Your task to perform on an android device: toggle priority inbox in the gmail app Image 0: 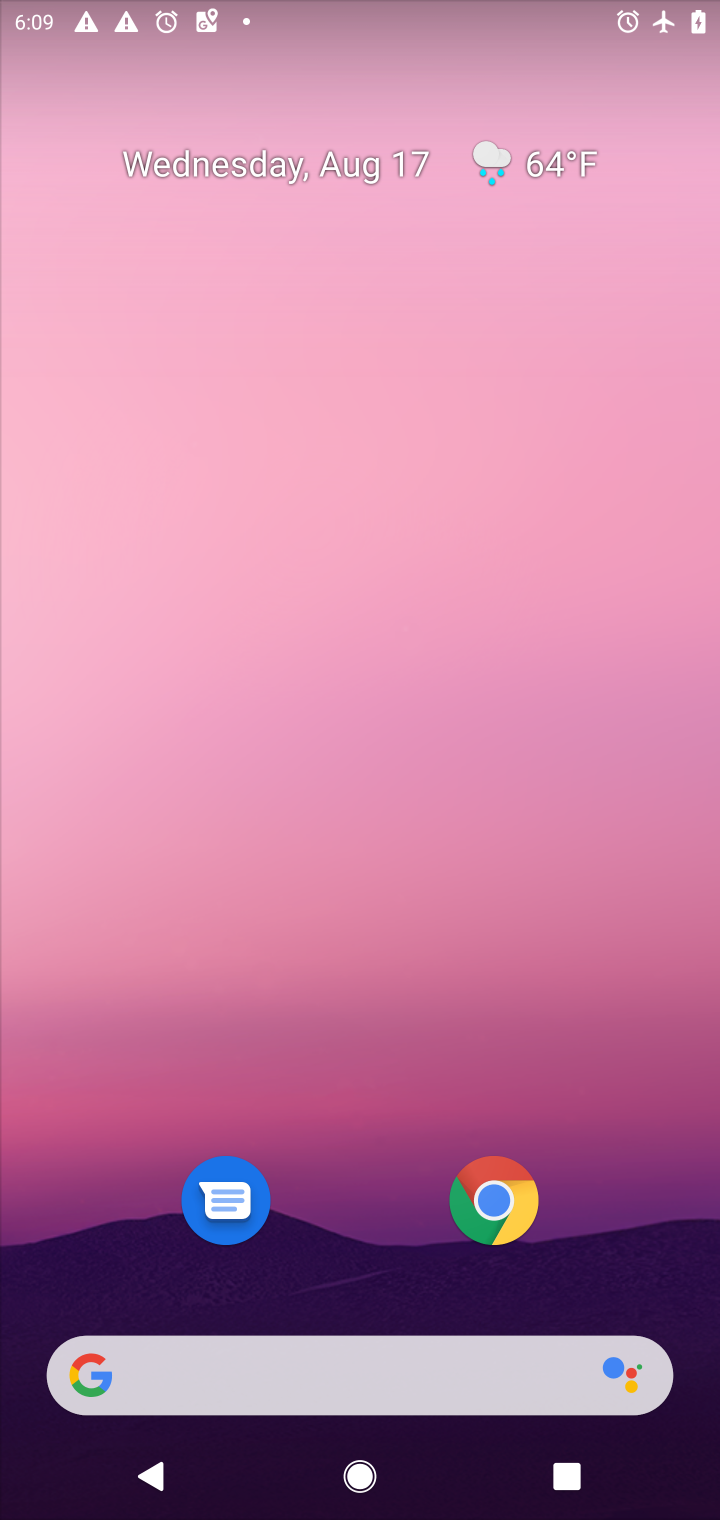
Step 0: drag from (395, 831) to (395, 39)
Your task to perform on an android device: toggle priority inbox in the gmail app Image 1: 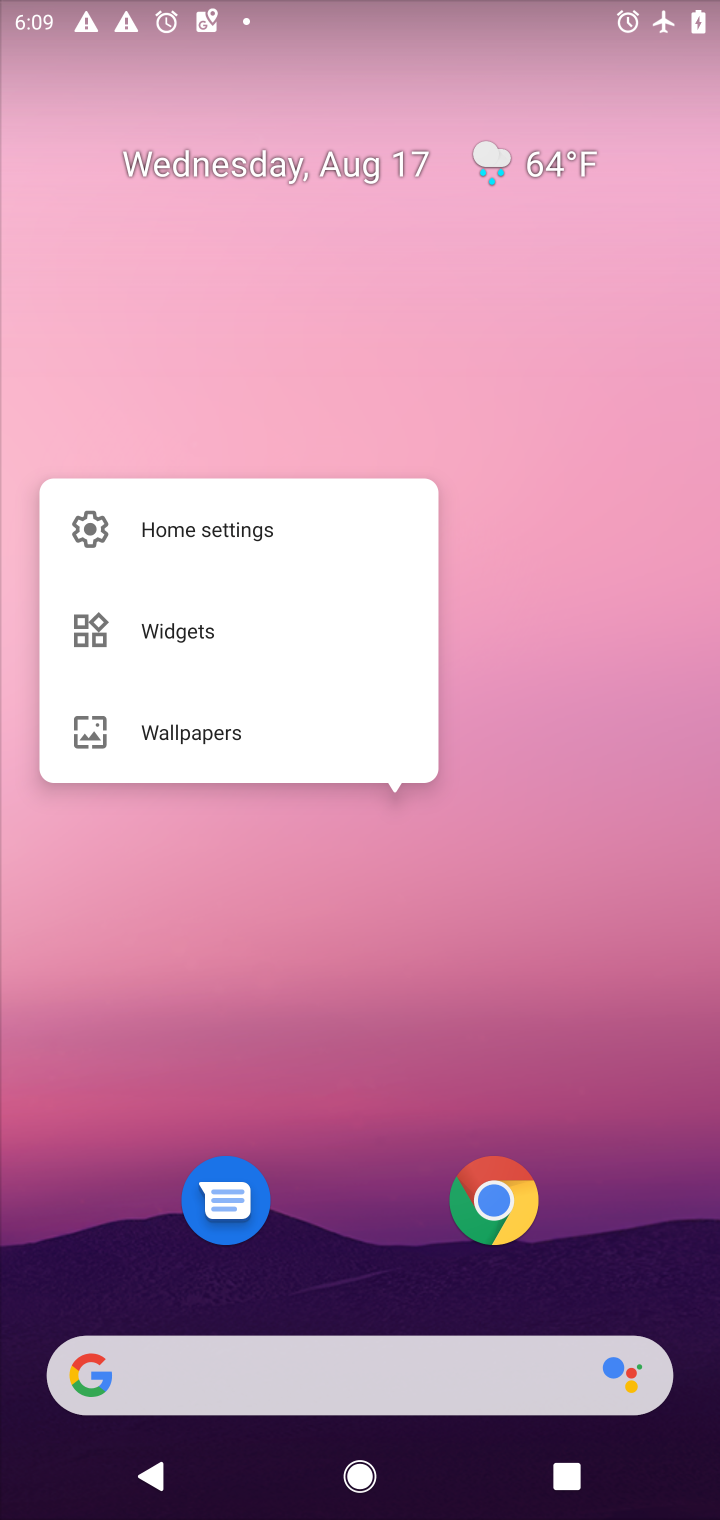
Step 1: click (259, 1027)
Your task to perform on an android device: toggle priority inbox in the gmail app Image 2: 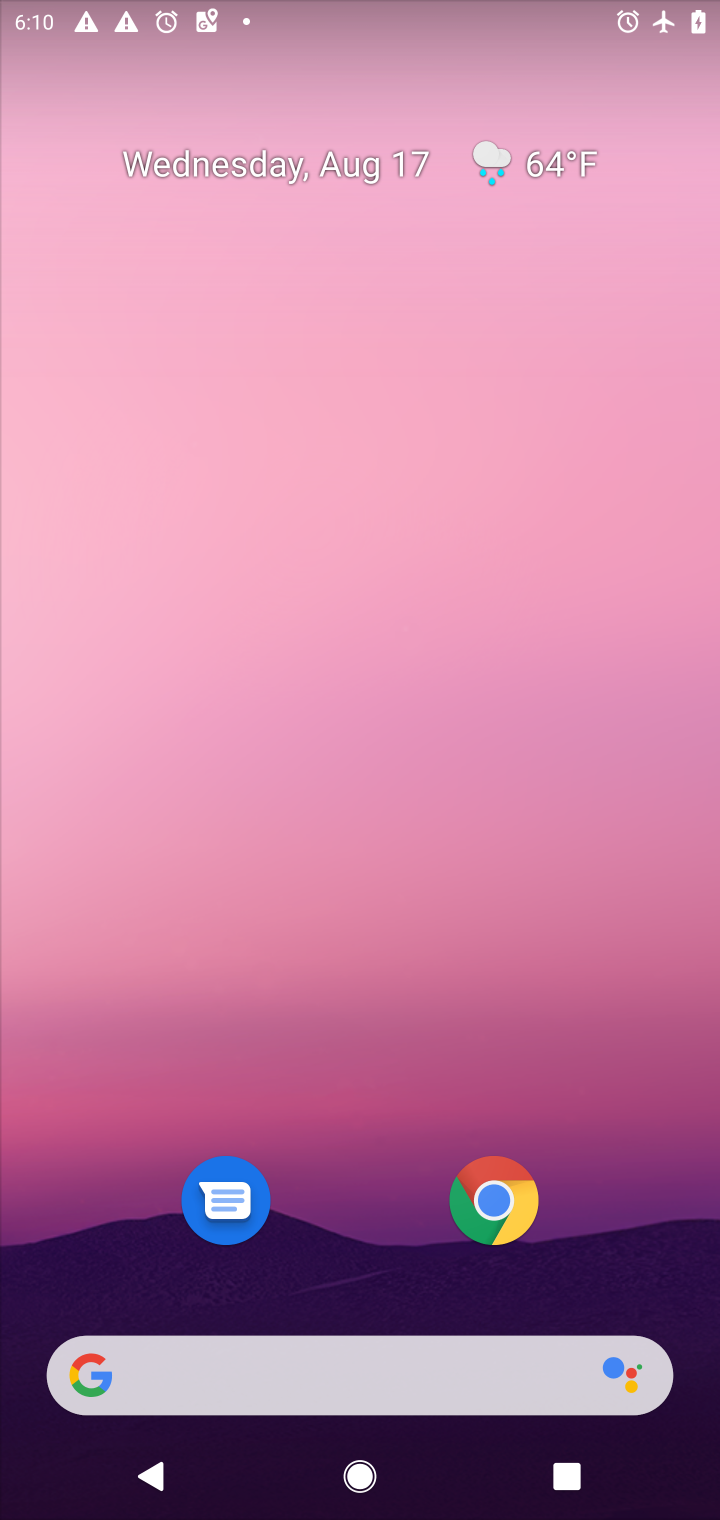
Step 2: drag from (300, 1315) to (267, 62)
Your task to perform on an android device: toggle priority inbox in the gmail app Image 3: 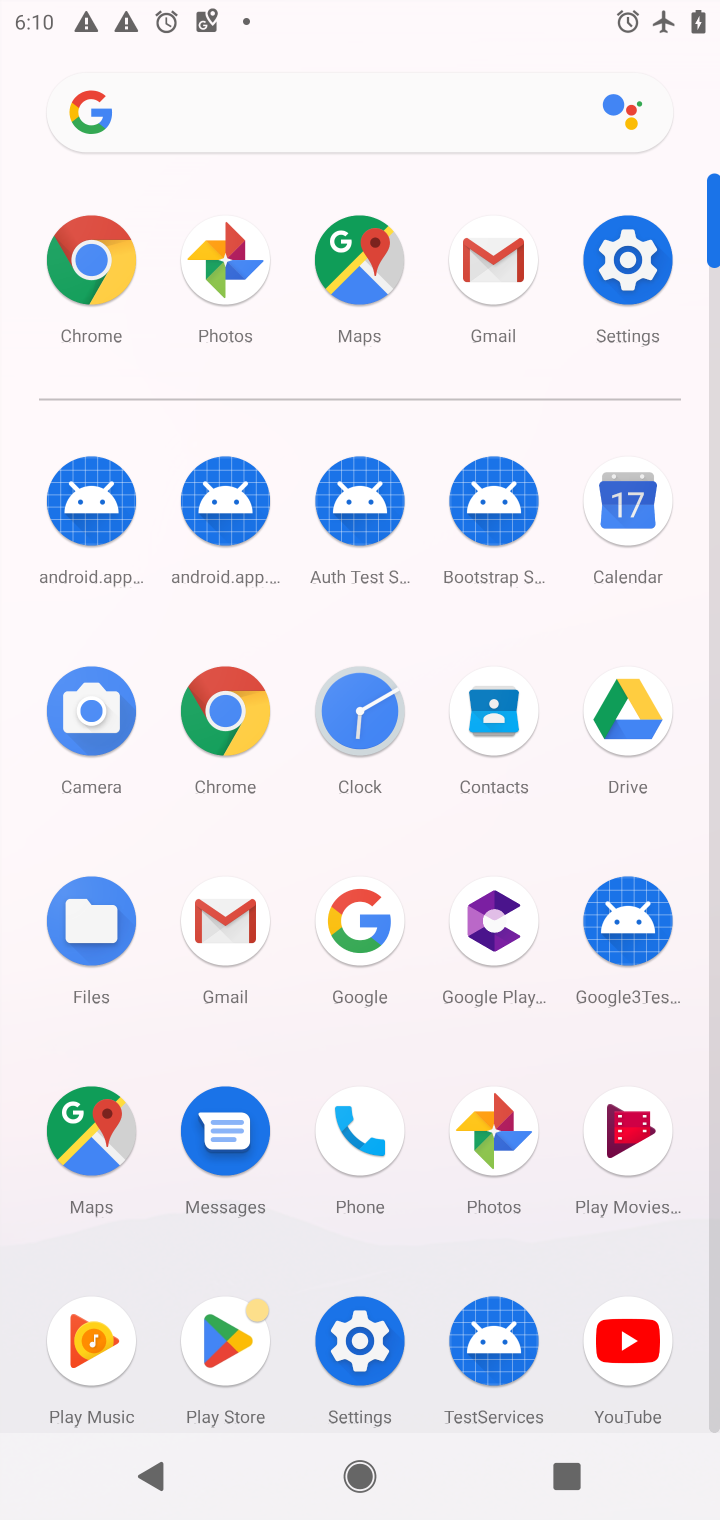
Step 3: click (217, 908)
Your task to perform on an android device: toggle priority inbox in the gmail app Image 4: 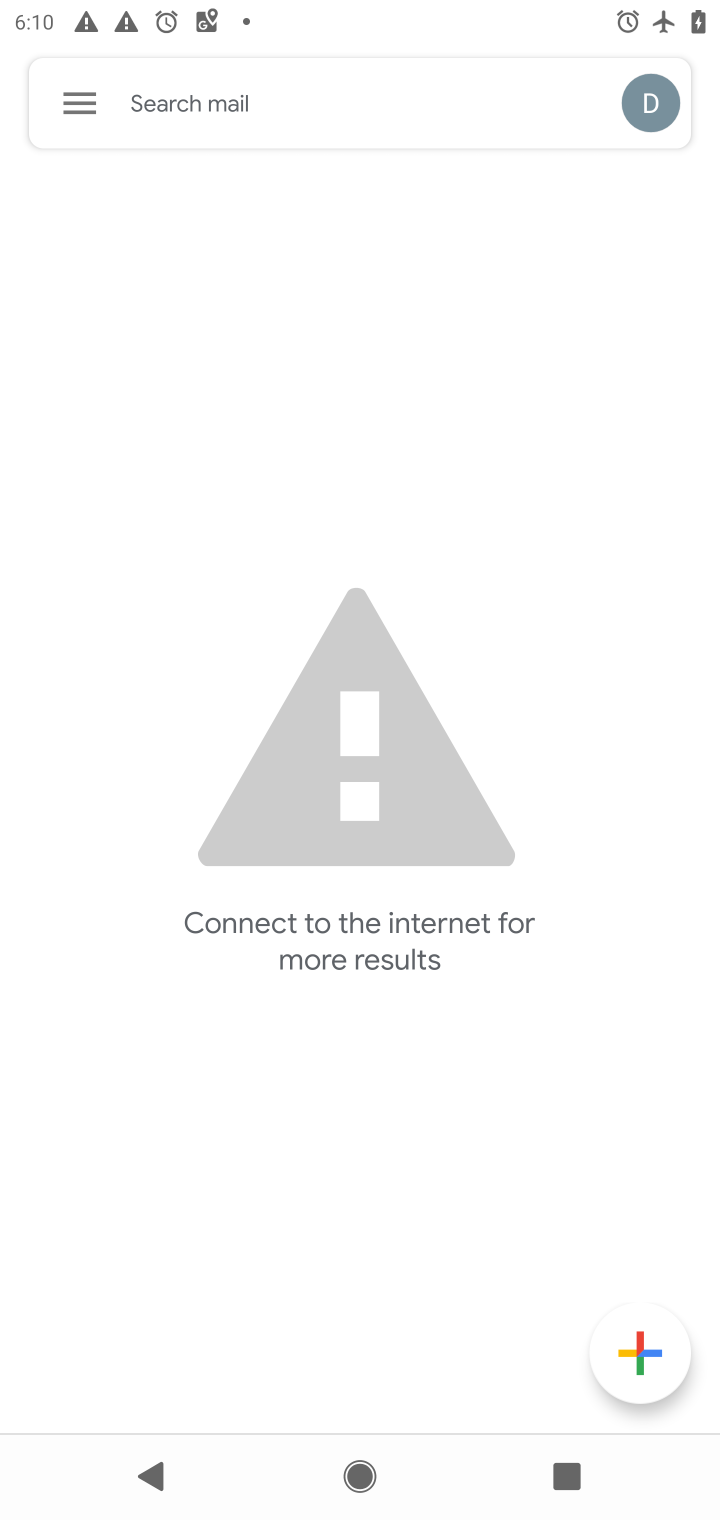
Step 4: click (74, 96)
Your task to perform on an android device: toggle priority inbox in the gmail app Image 5: 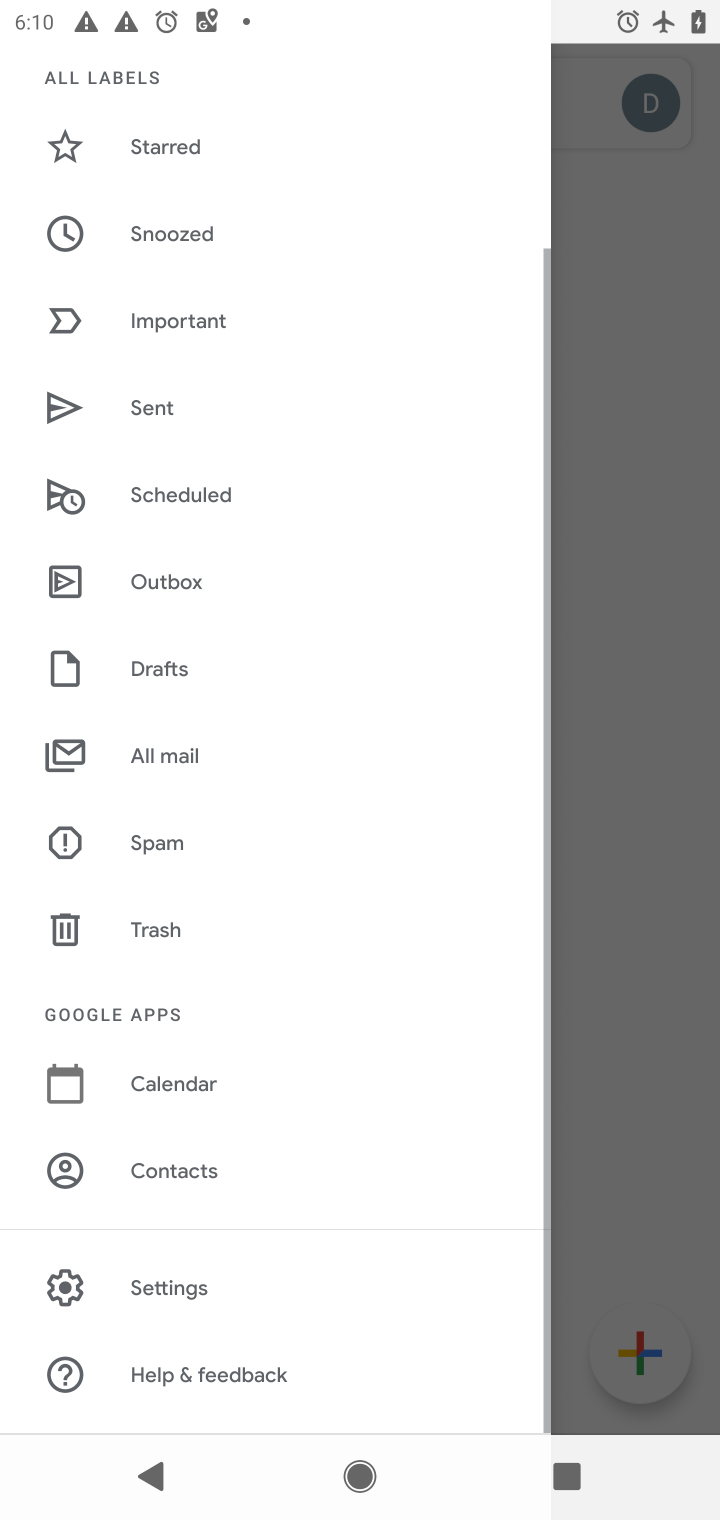
Step 5: click (173, 1290)
Your task to perform on an android device: toggle priority inbox in the gmail app Image 6: 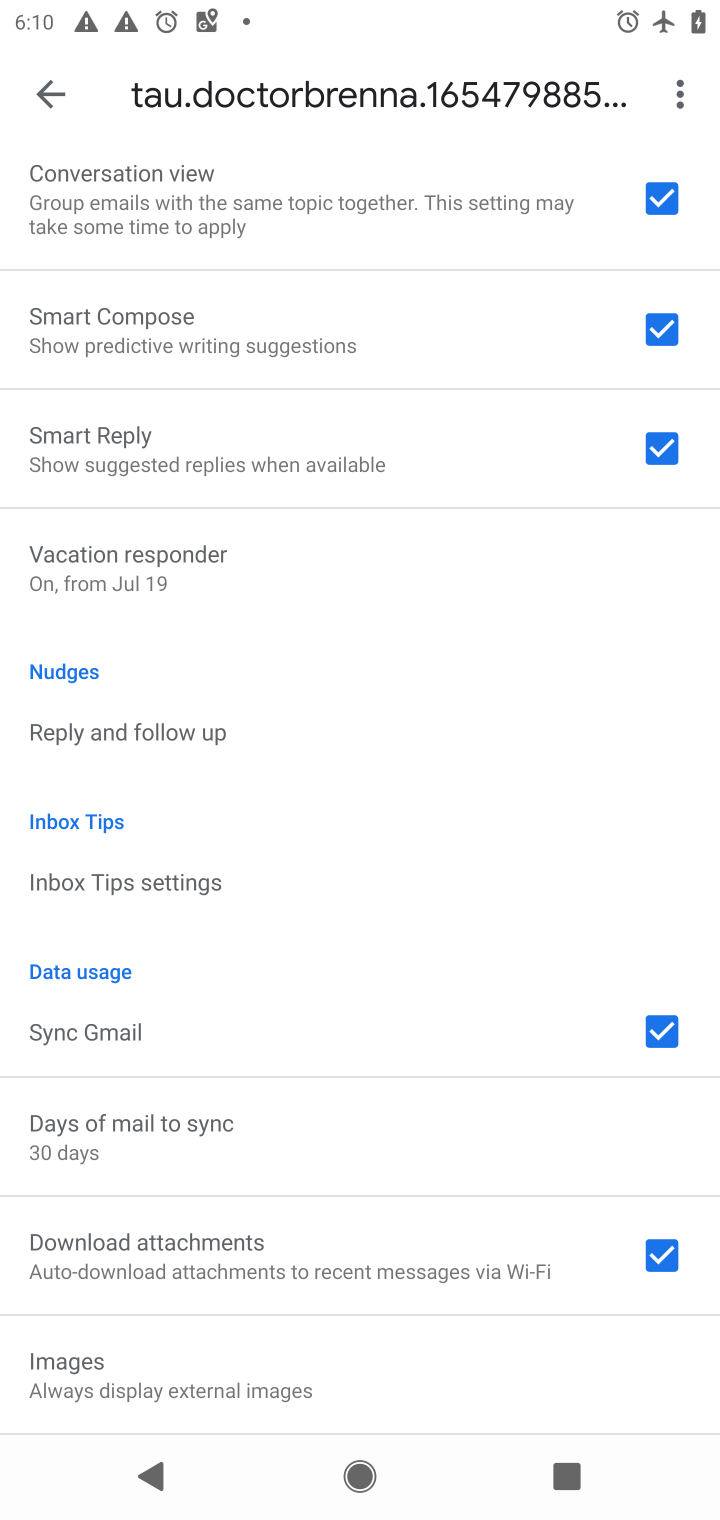
Step 6: drag from (209, 156) to (226, 1061)
Your task to perform on an android device: toggle priority inbox in the gmail app Image 7: 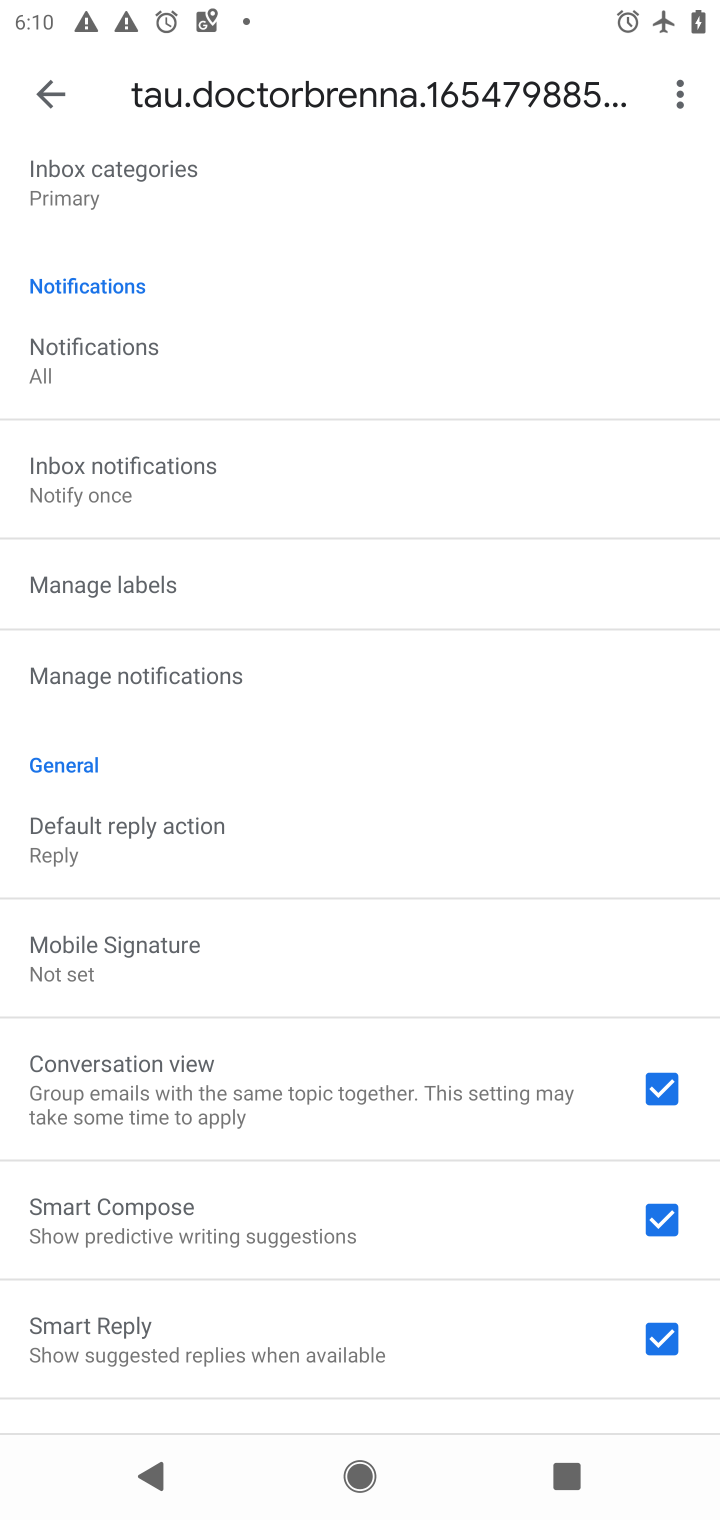
Step 7: drag from (174, 228) to (208, 962)
Your task to perform on an android device: toggle priority inbox in the gmail app Image 8: 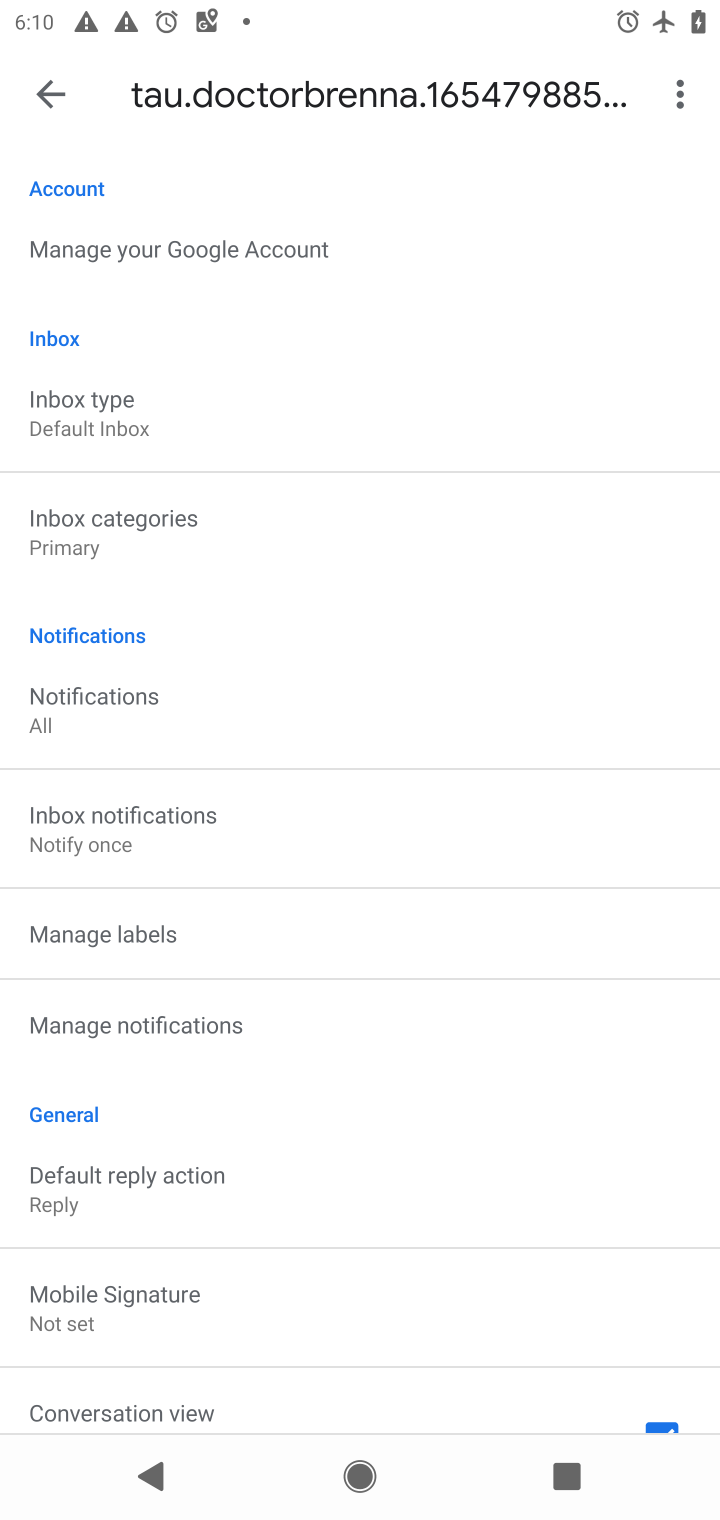
Step 8: click (93, 410)
Your task to perform on an android device: toggle priority inbox in the gmail app Image 9: 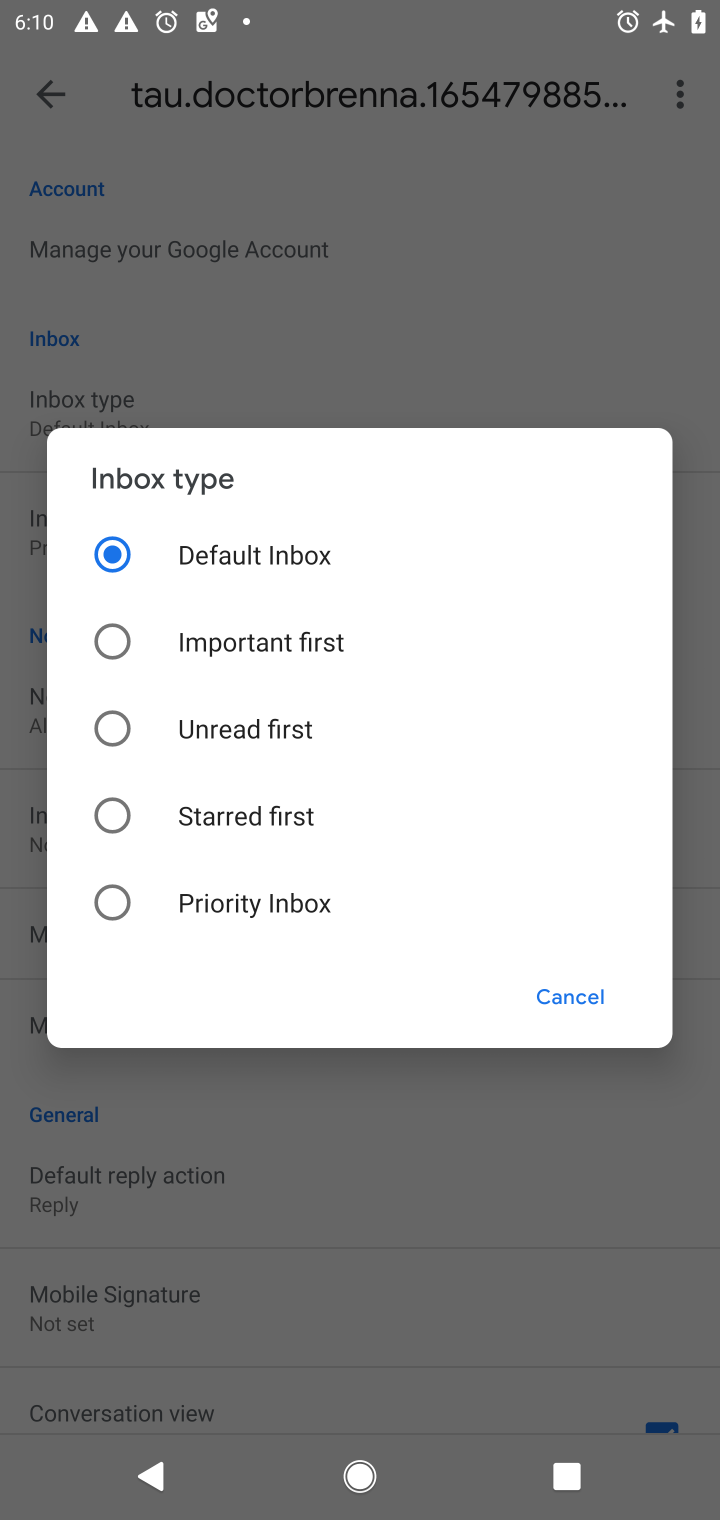
Step 9: click (107, 901)
Your task to perform on an android device: toggle priority inbox in the gmail app Image 10: 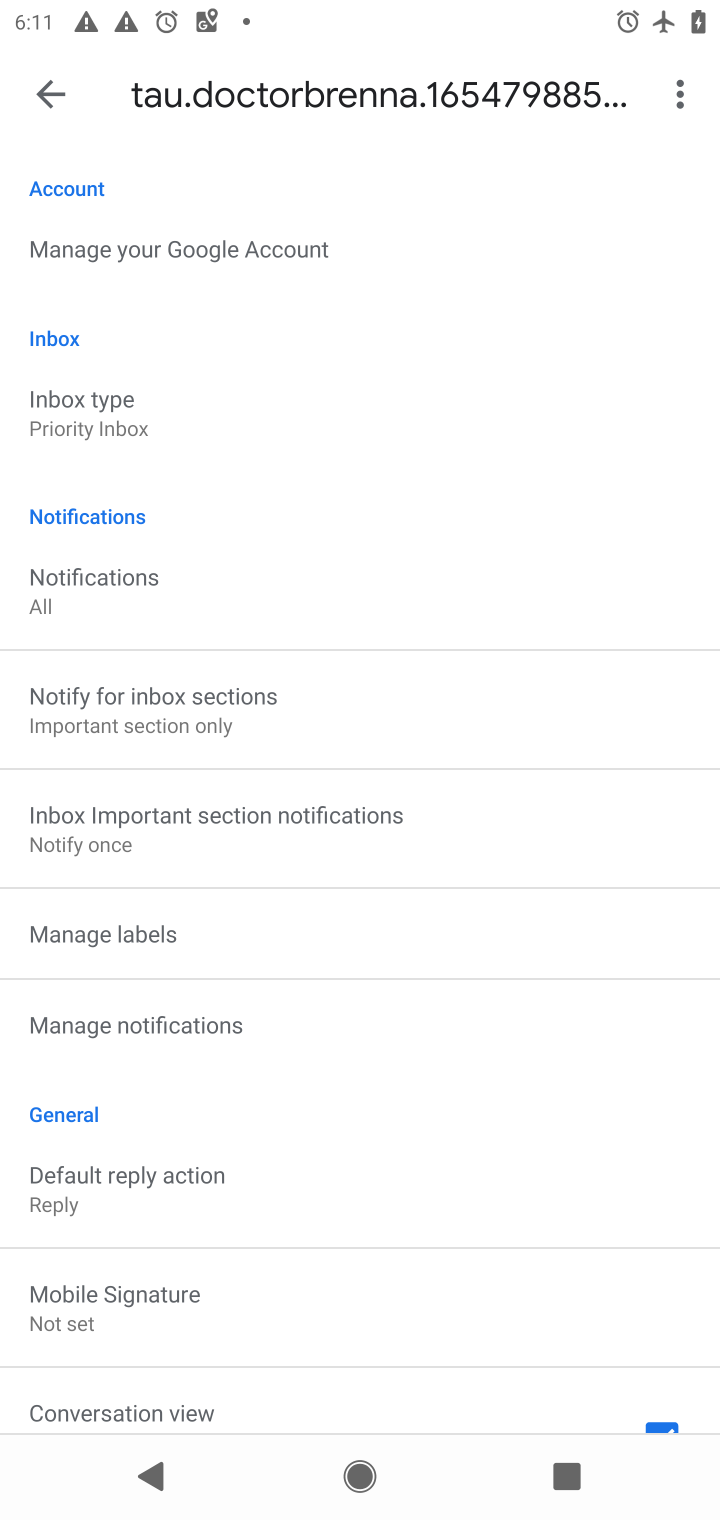
Step 10: task complete